Your task to perform on an android device: Search for the best rated 4K TV on Best Buy. Image 0: 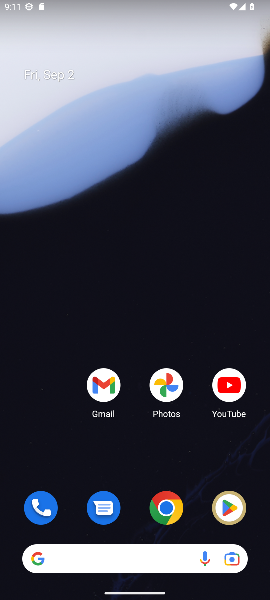
Step 0: drag from (195, 466) to (106, 59)
Your task to perform on an android device: Search for the best rated 4K TV on Best Buy. Image 1: 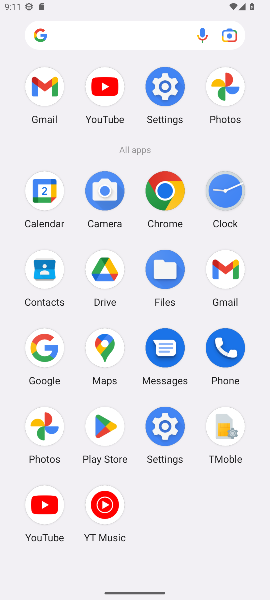
Step 1: click (165, 183)
Your task to perform on an android device: Search for the best rated 4K TV on Best Buy. Image 2: 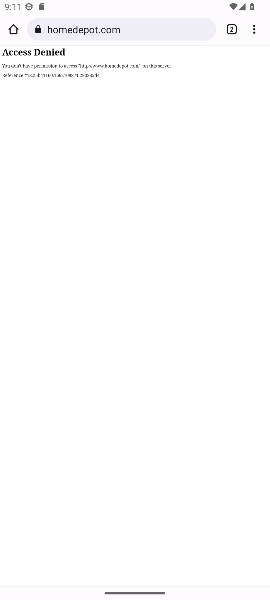
Step 2: click (102, 25)
Your task to perform on an android device: Search for the best rated 4K TV on Best Buy. Image 3: 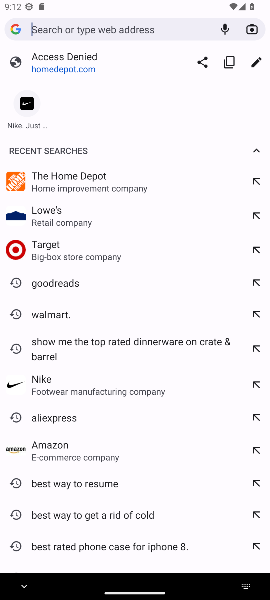
Step 3: type "Best Buy."
Your task to perform on an android device: Search for the best rated 4K TV on Best Buy. Image 4: 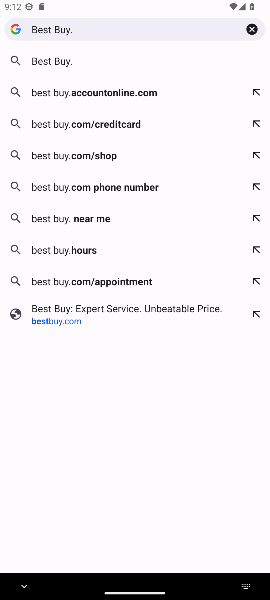
Step 4: click (45, 62)
Your task to perform on an android device: Search for the best rated 4K TV on Best Buy. Image 5: 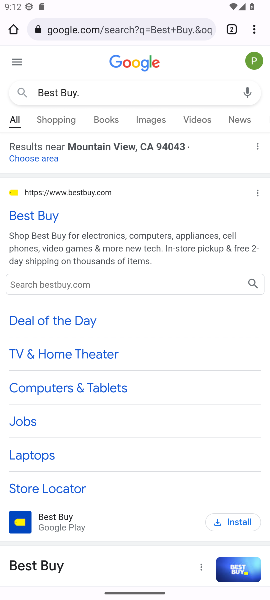
Step 5: click (34, 211)
Your task to perform on an android device: Search for the best rated 4K TV on Best Buy. Image 6: 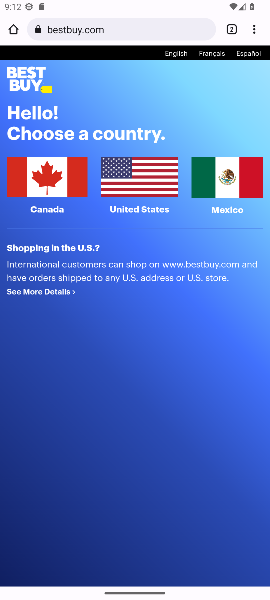
Step 6: click (83, 136)
Your task to perform on an android device: Search for the best rated 4K TV on Best Buy. Image 7: 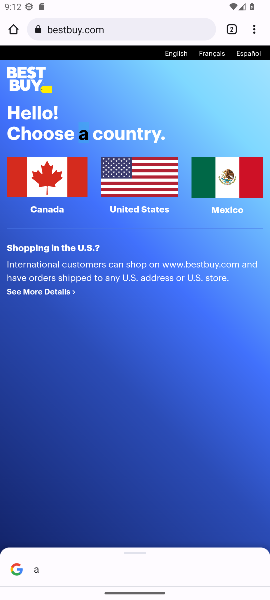
Step 7: click (102, 467)
Your task to perform on an android device: Search for the best rated 4K TV on Best Buy. Image 8: 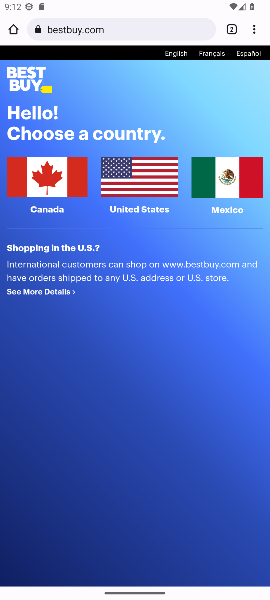
Step 8: click (220, 49)
Your task to perform on an android device: Search for the best rated 4K TV on Best Buy. Image 9: 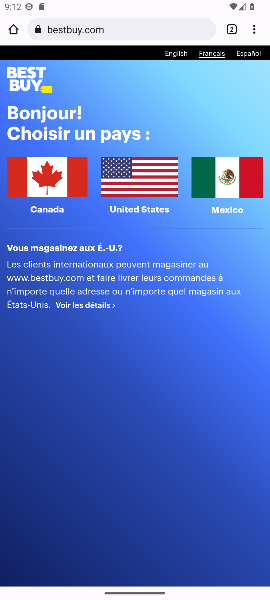
Step 9: click (191, 107)
Your task to perform on an android device: Search for the best rated 4K TV on Best Buy. Image 10: 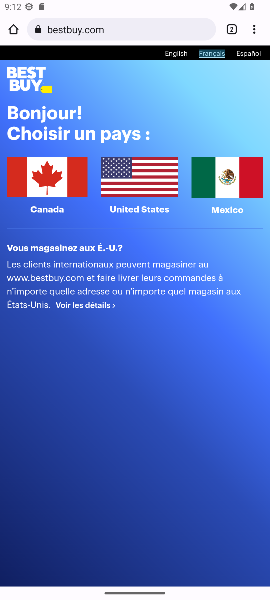
Step 10: task complete